Your task to perform on an android device: Go to network settings Image 0: 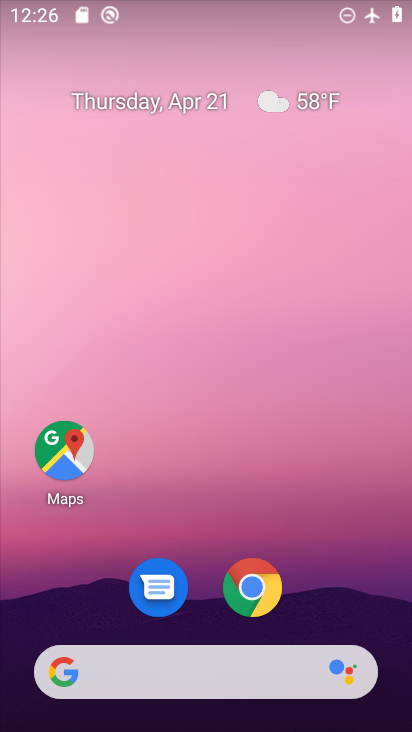
Step 0: click (201, 286)
Your task to perform on an android device: Go to network settings Image 1: 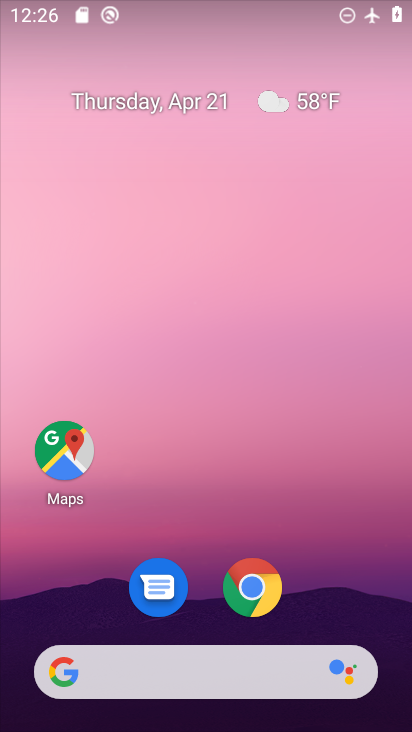
Step 1: drag from (191, 582) to (309, 64)
Your task to perform on an android device: Go to network settings Image 2: 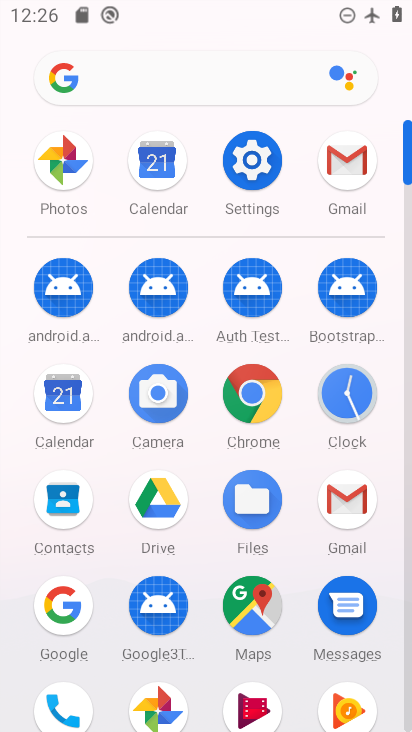
Step 2: click (263, 189)
Your task to perform on an android device: Go to network settings Image 3: 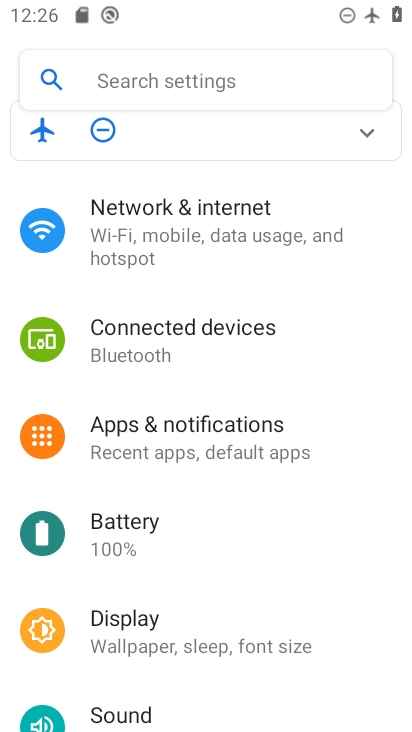
Step 3: click (146, 264)
Your task to perform on an android device: Go to network settings Image 4: 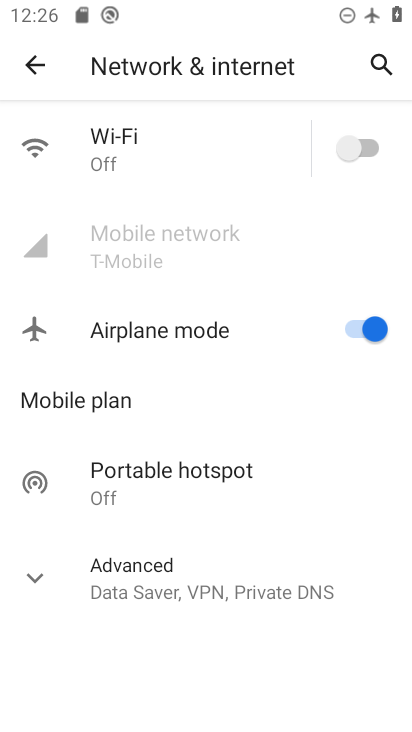
Step 4: task complete